Your task to perform on an android device: Google the capital of Canada Image 0: 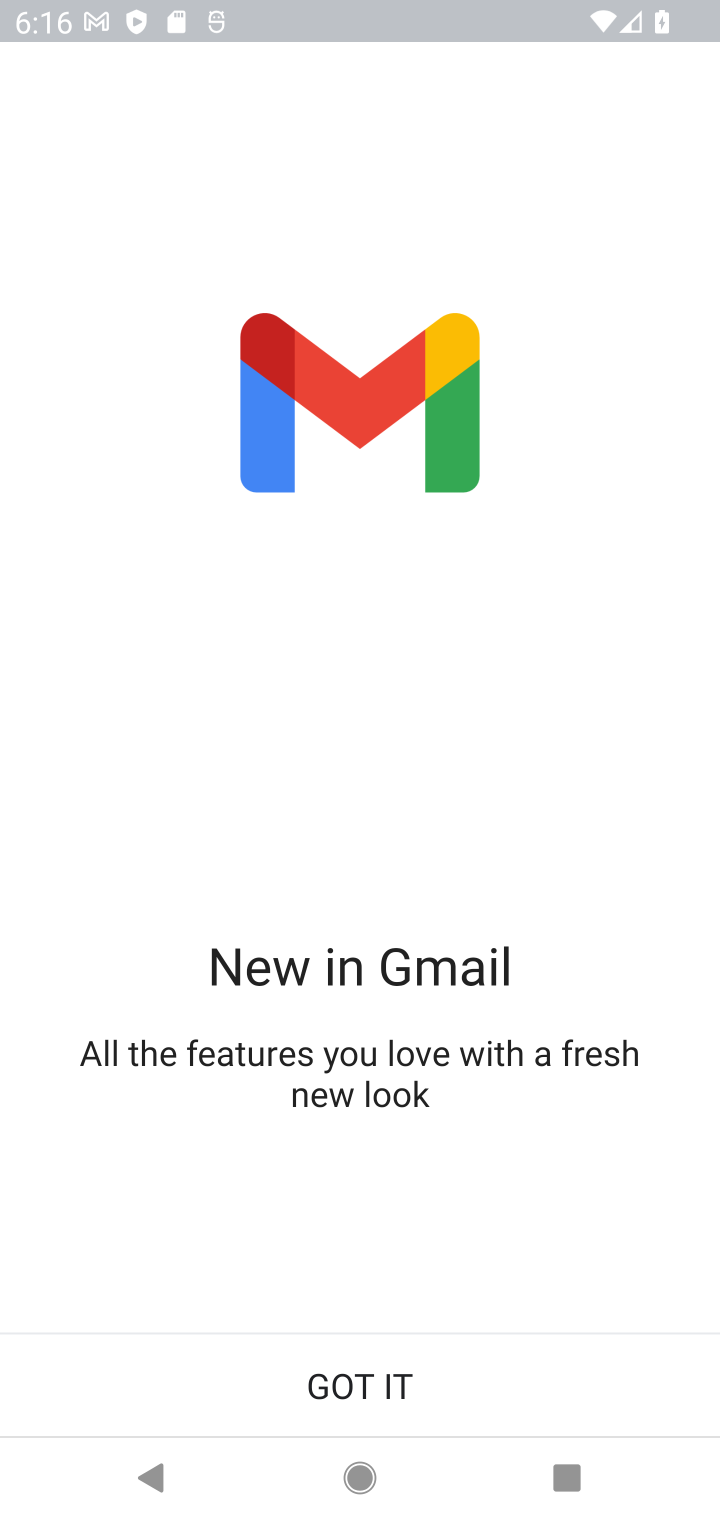
Step 0: press home button
Your task to perform on an android device: Google the capital of Canada Image 1: 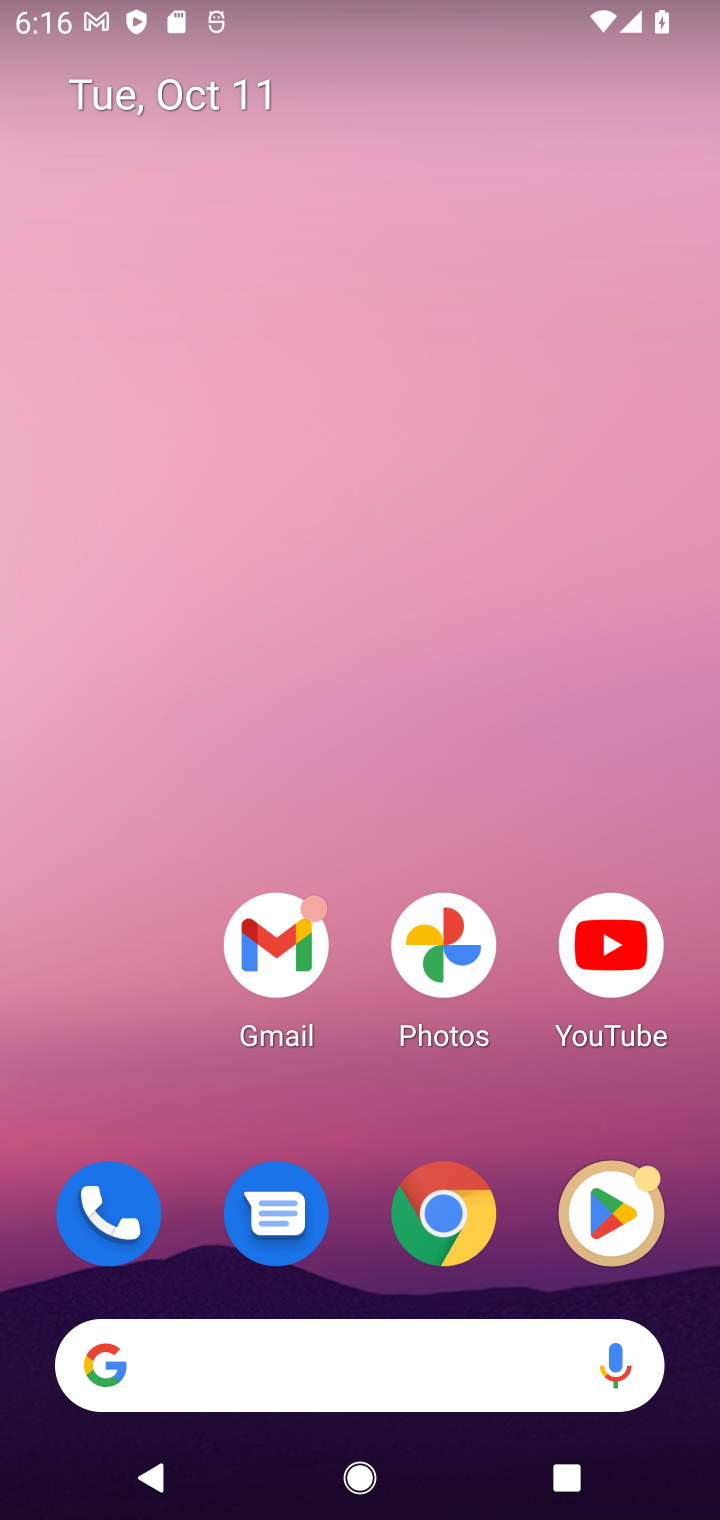
Step 1: drag from (474, 1345) to (491, 633)
Your task to perform on an android device: Google the capital of Canada Image 2: 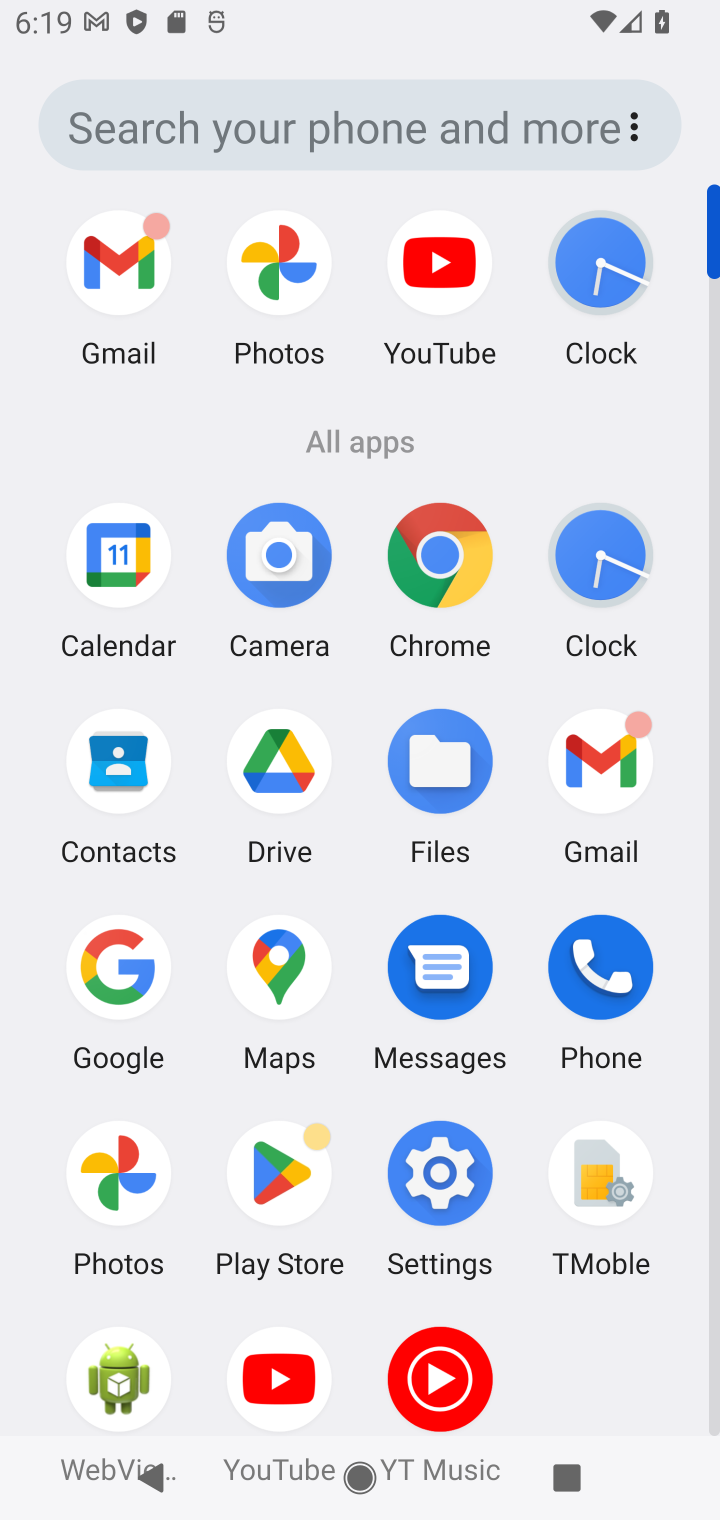
Step 2: click (120, 953)
Your task to perform on an android device: Google the capital of Canada Image 3: 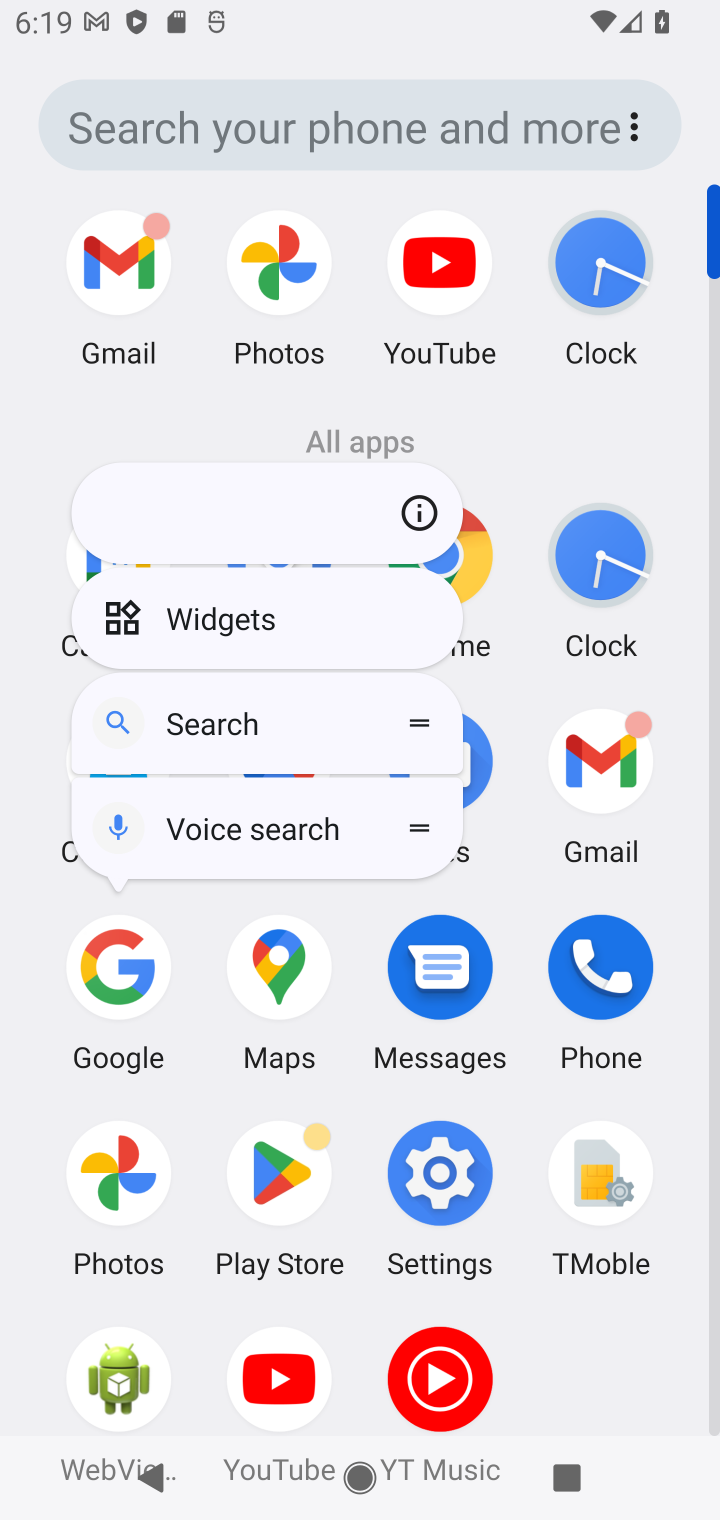
Step 3: click (120, 953)
Your task to perform on an android device: Google the capital of Canada Image 4: 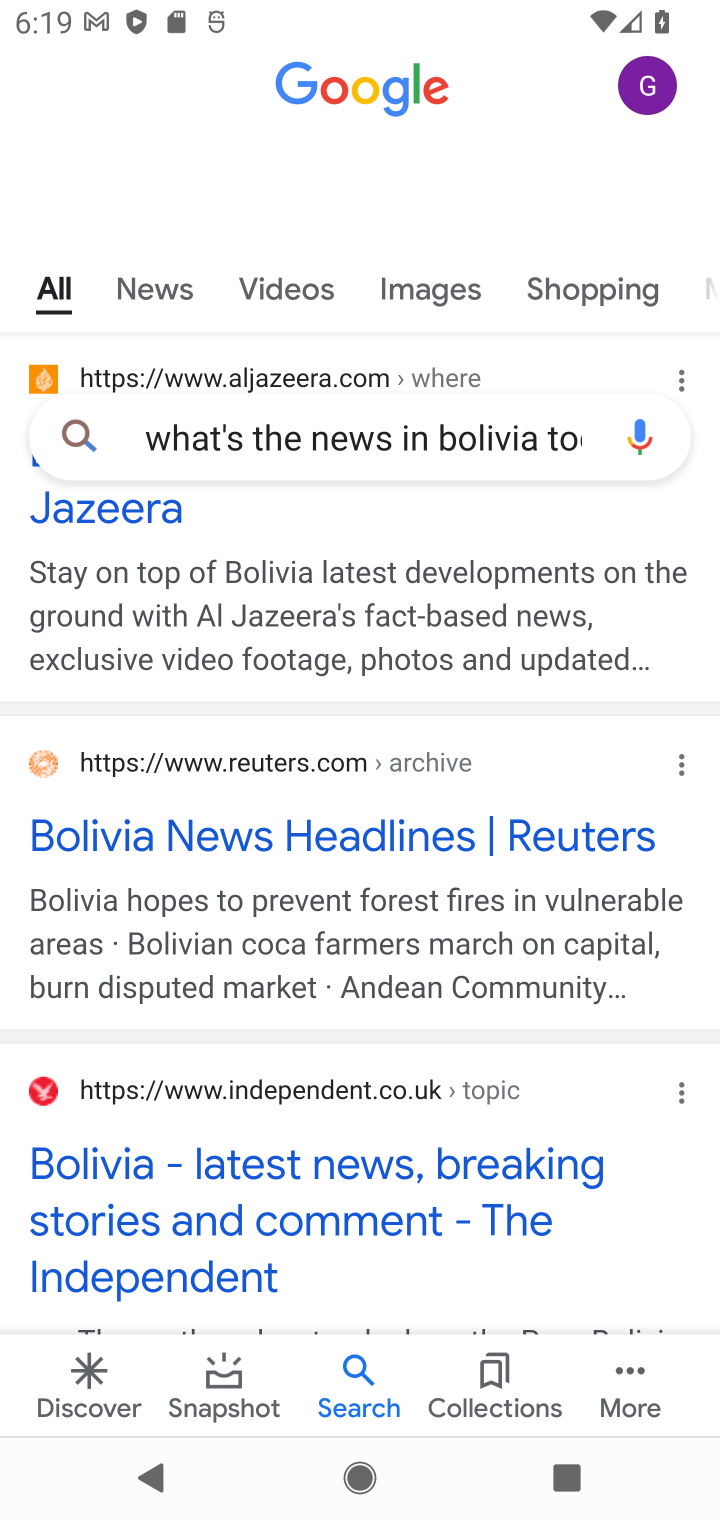
Step 4: click (120, 953)
Your task to perform on an android device: Google the capital of Canada Image 5: 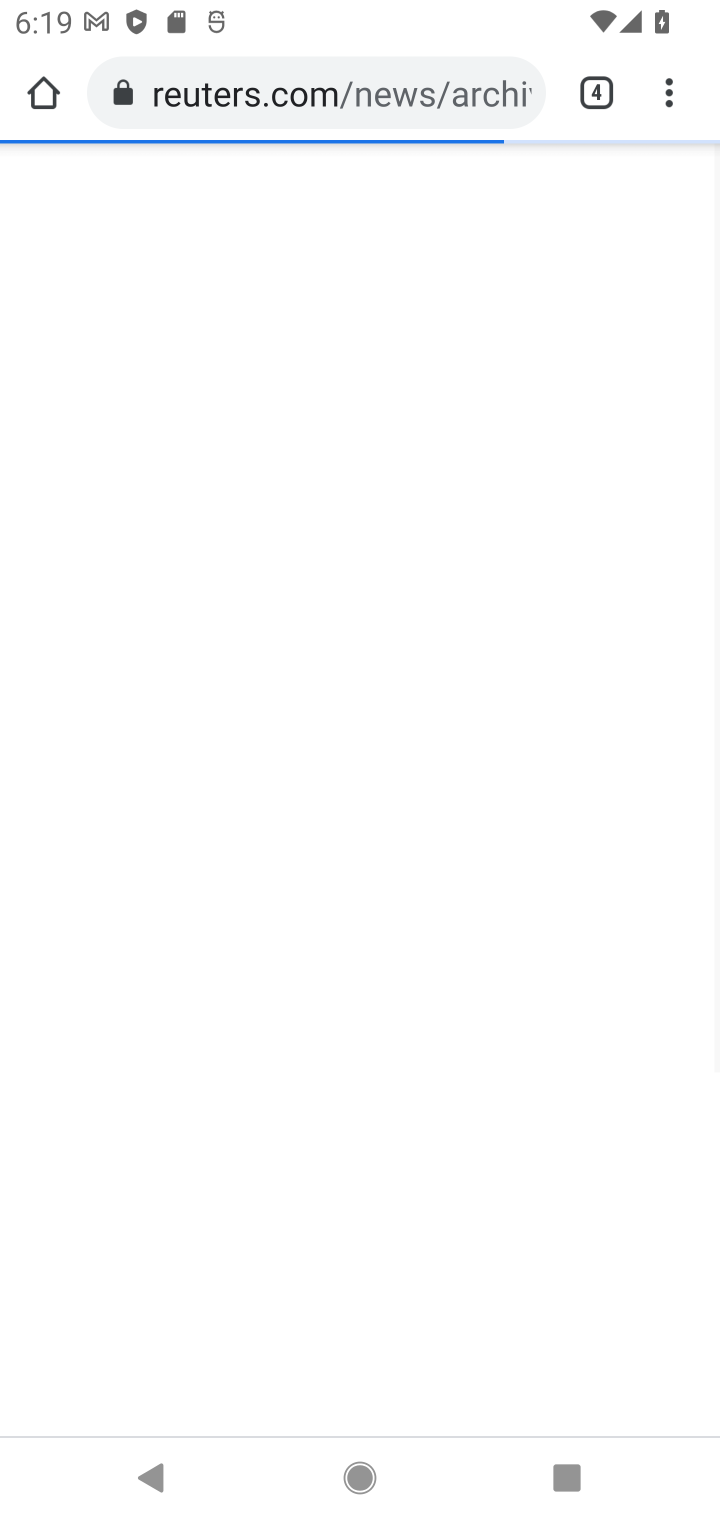
Step 5: press back button
Your task to perform on an android device: Google the capital of Canada Image 6: 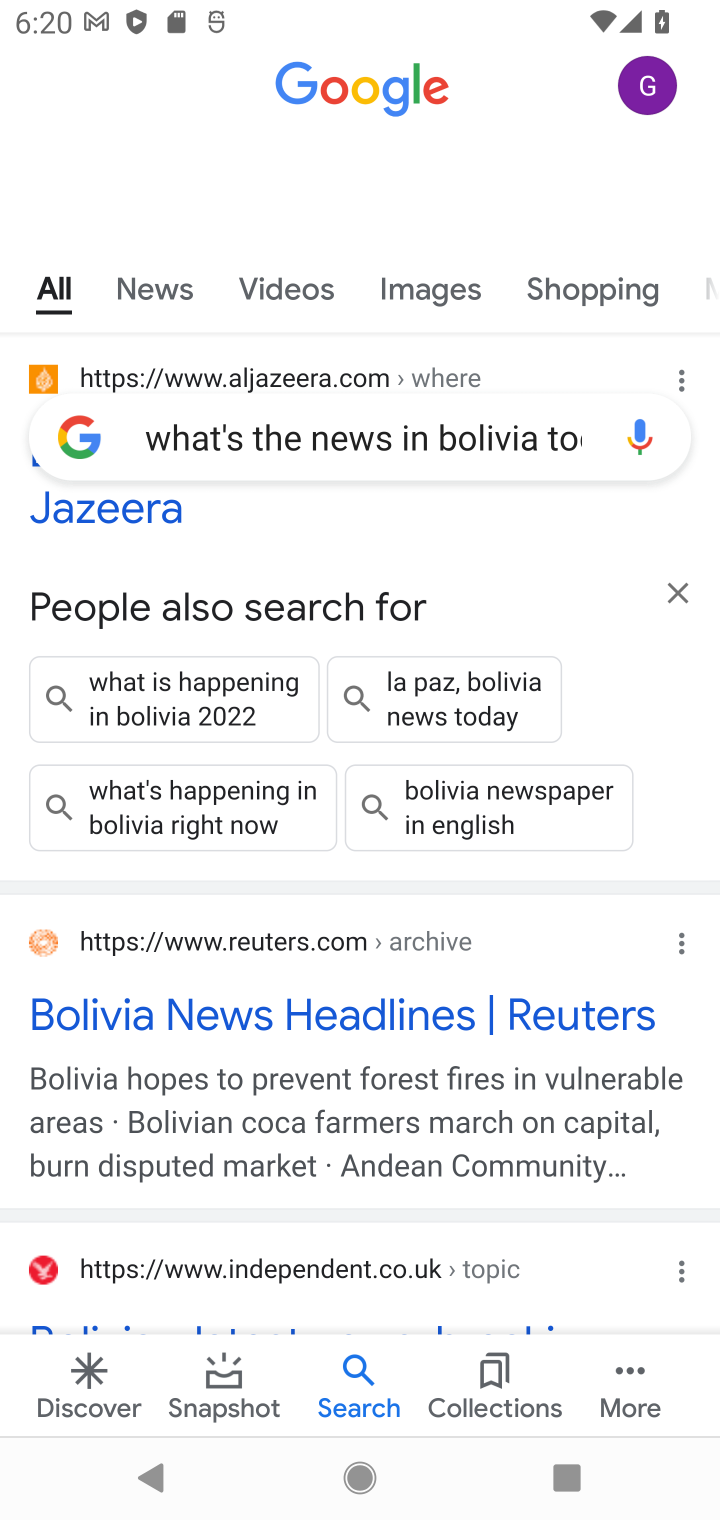
Step 6: click (416, 435)
Your task to perform on an android device: Google the capital of Canada Image 7: 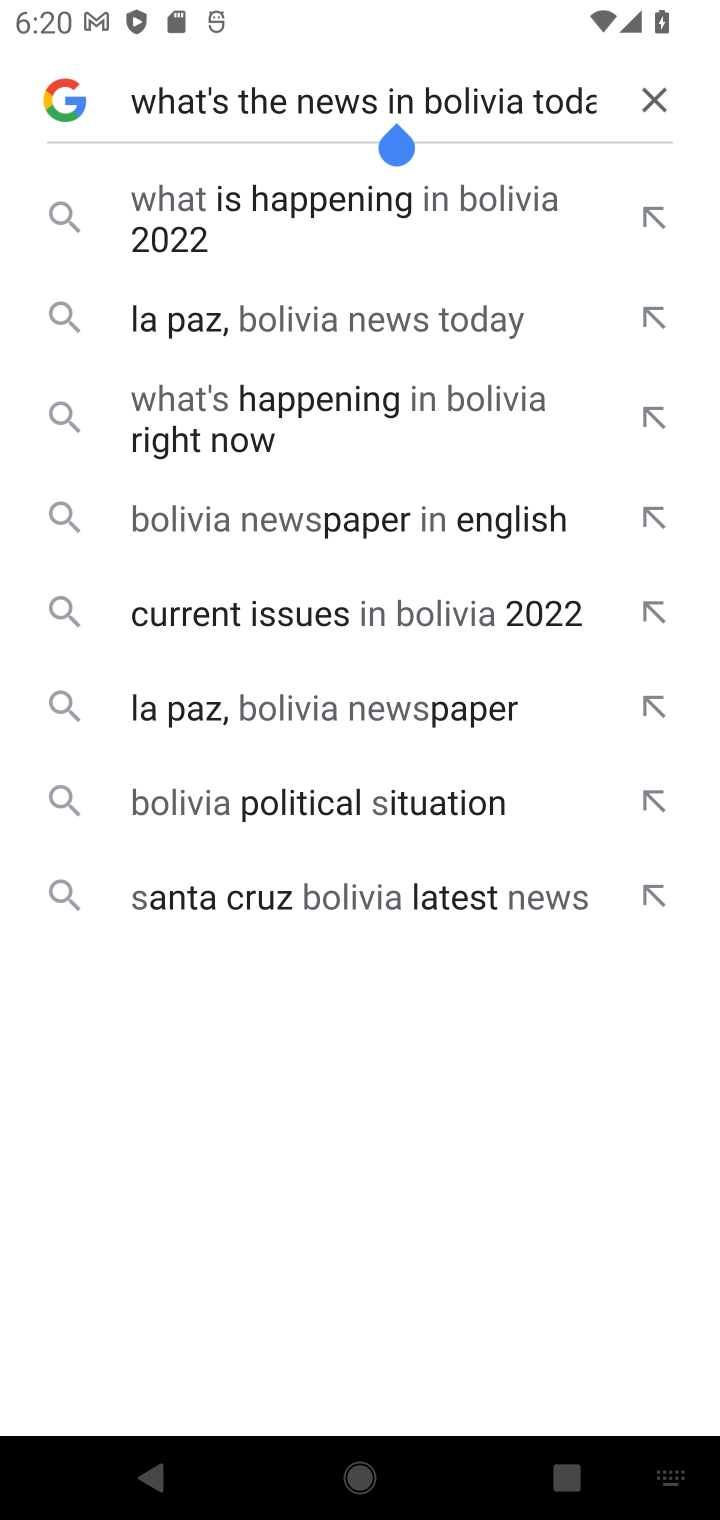
Step 7: click (616, 97)
Your task to perform on an android device: Google the capital of Canada Image 8: 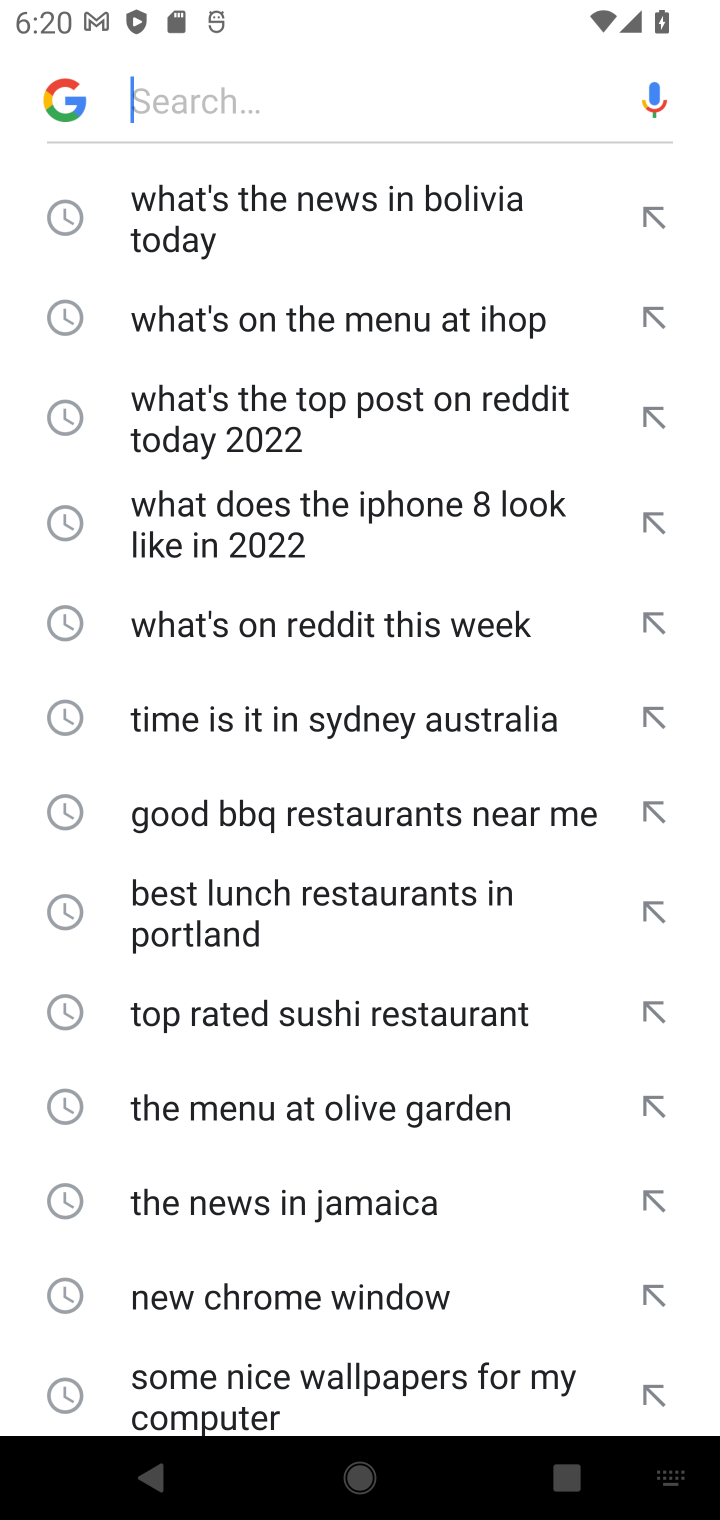
Step 8: click (380, 95)
Your task to perform on an android device: Google the capital of Canada Image 9: 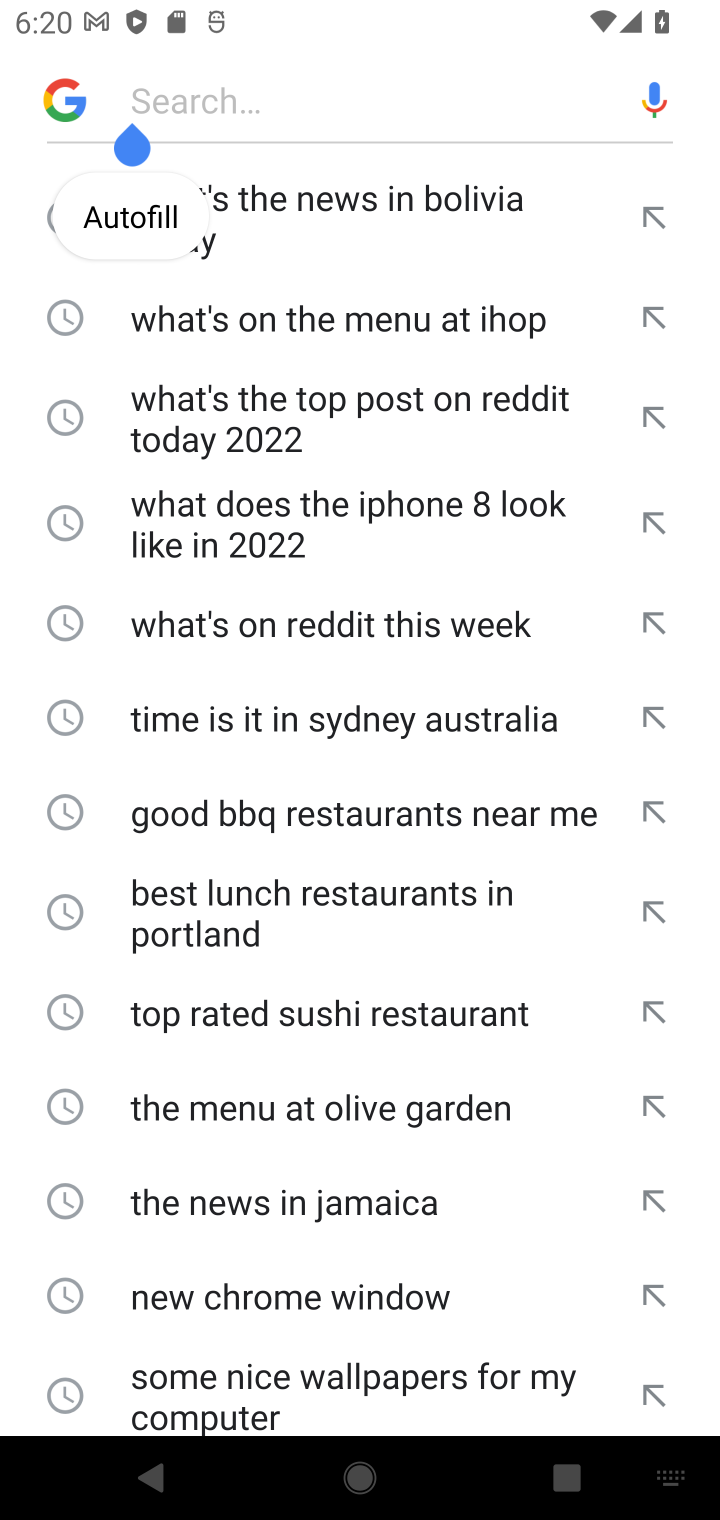
Step 9: type "Google the capital of Canada "
Your task to perform on an android device: Google the capital of Canada Image 10: 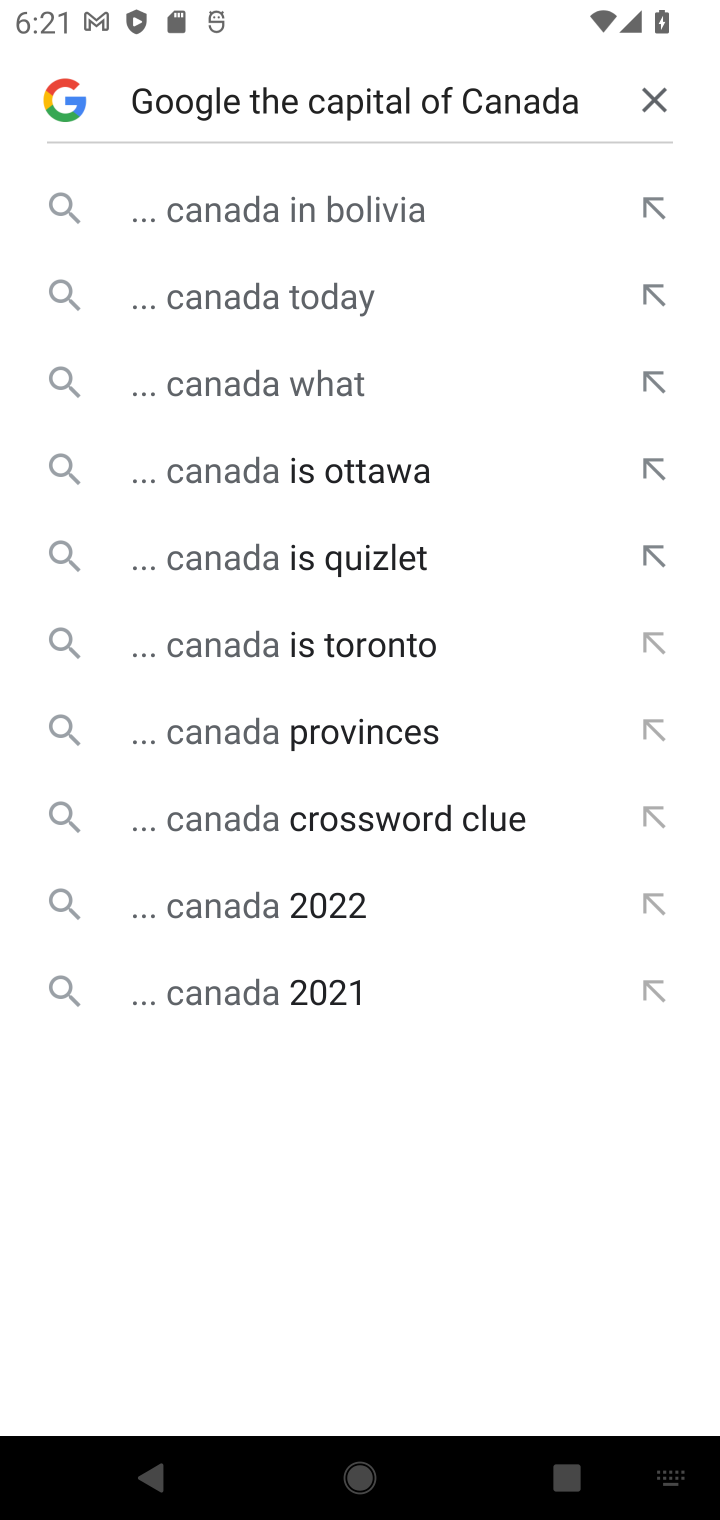
Step 10: click (325, 220)
Your task to perform on an android device: Google the capital of Canada Image 11: 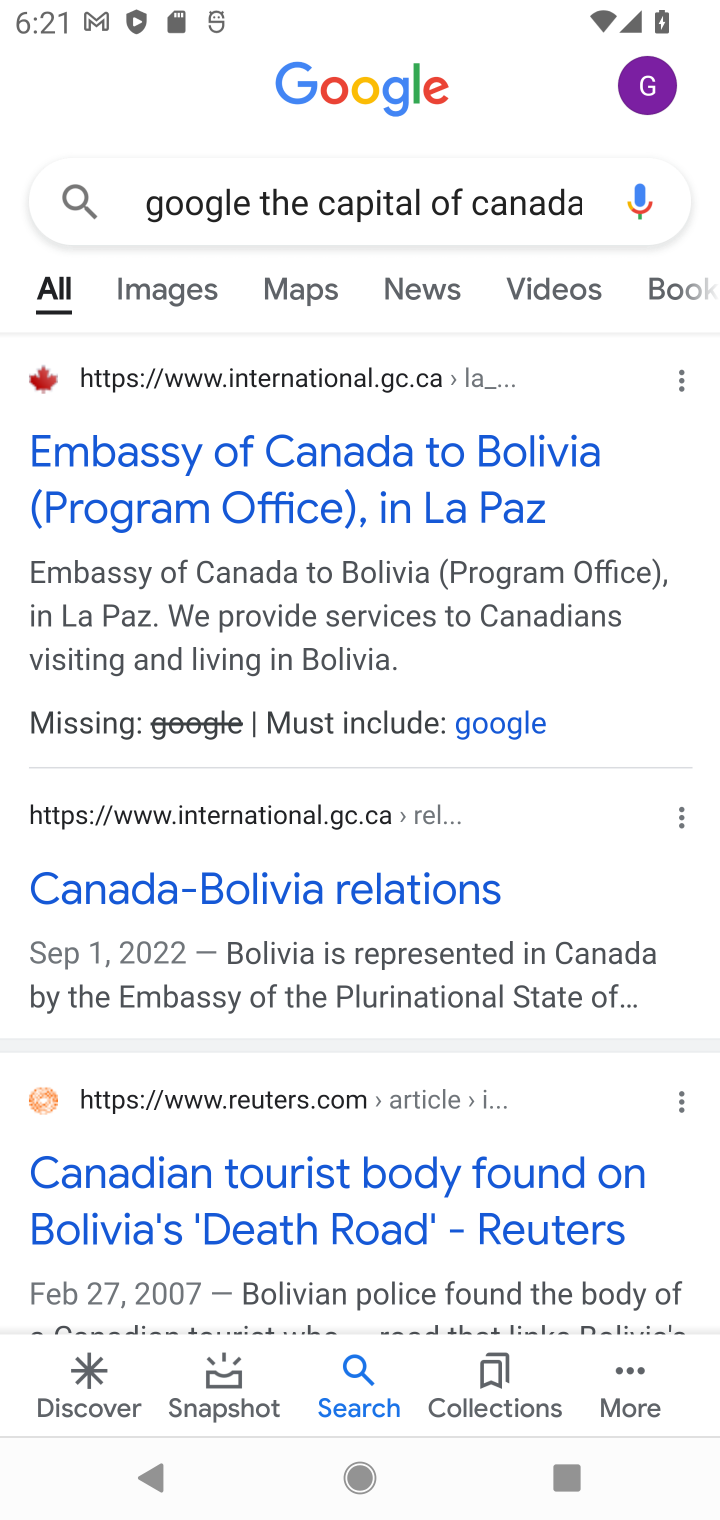
Step 11: click (302, 476)
Your task to perform on an android device: Google the capital of Canada Image 12: 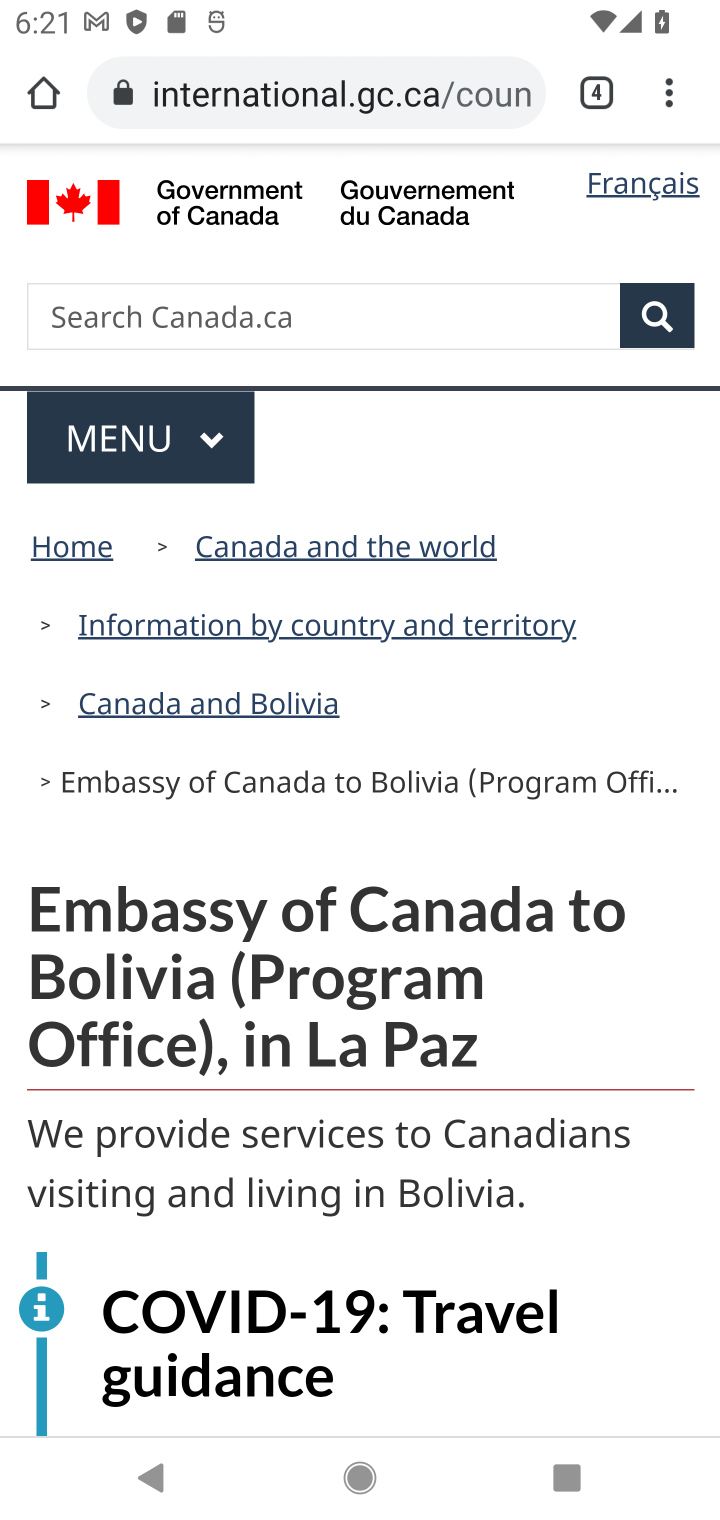
Step 12: task complete